Your task to perform on an android device: toggle data saver in the chrome app Image 0: 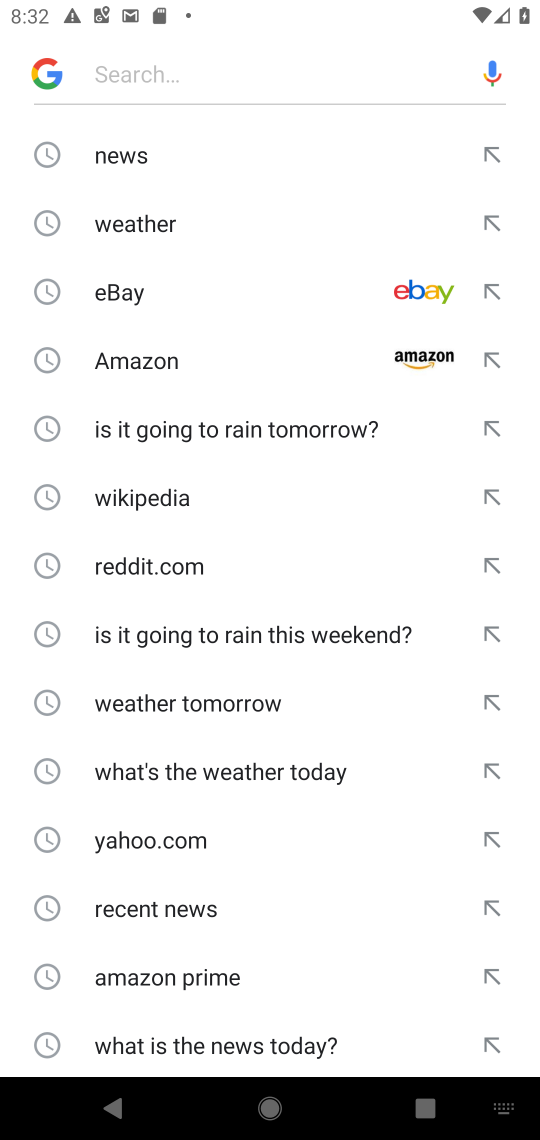
Step 0: press home button
Your task to perform on an android device: toggle data saver in the chrome app Image 1: 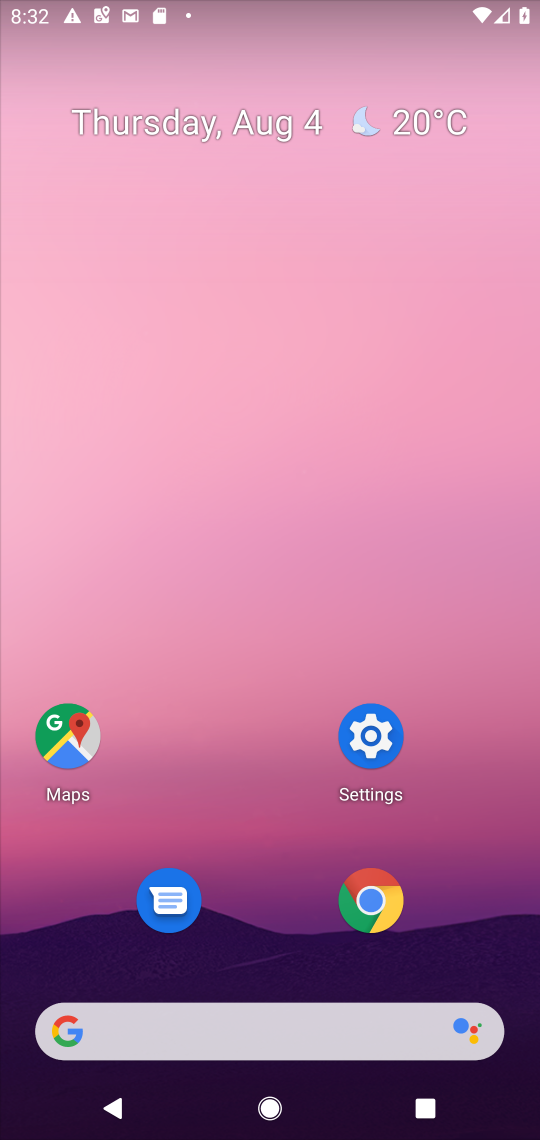
Step 1: click (371, 906)
Your task to perform on an android device: toggle data saver in the chrome app Image 2: 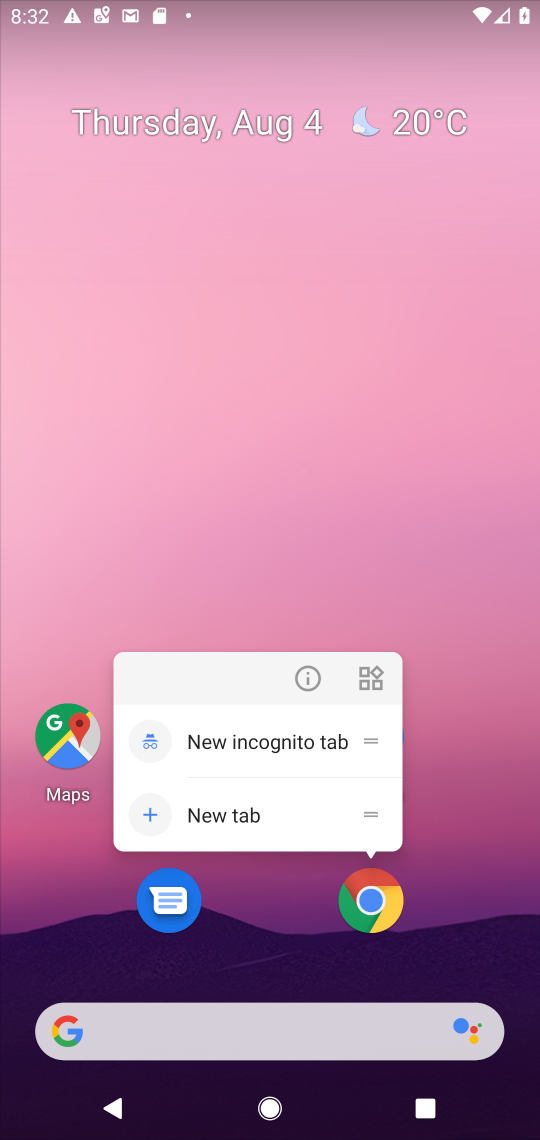
Step 2: click (371, 906)
Your task to perform on an android device: toggle data saver in the chrome app Image 3: 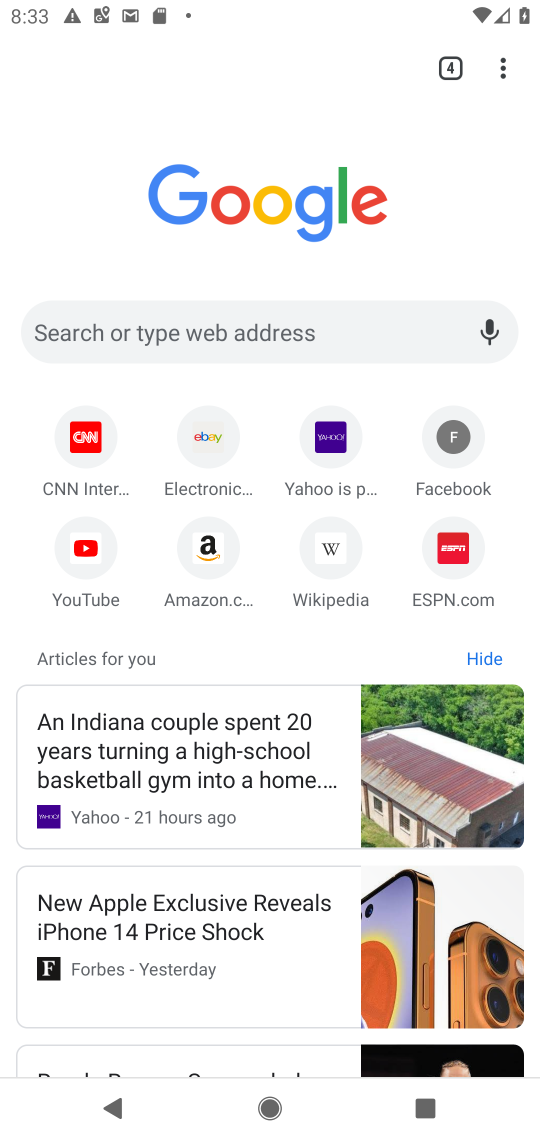
Step 3: drag from (498, 61) to (305, 634)
Your task to perform on an android device: toggle data saver in the chrome app Image 4: 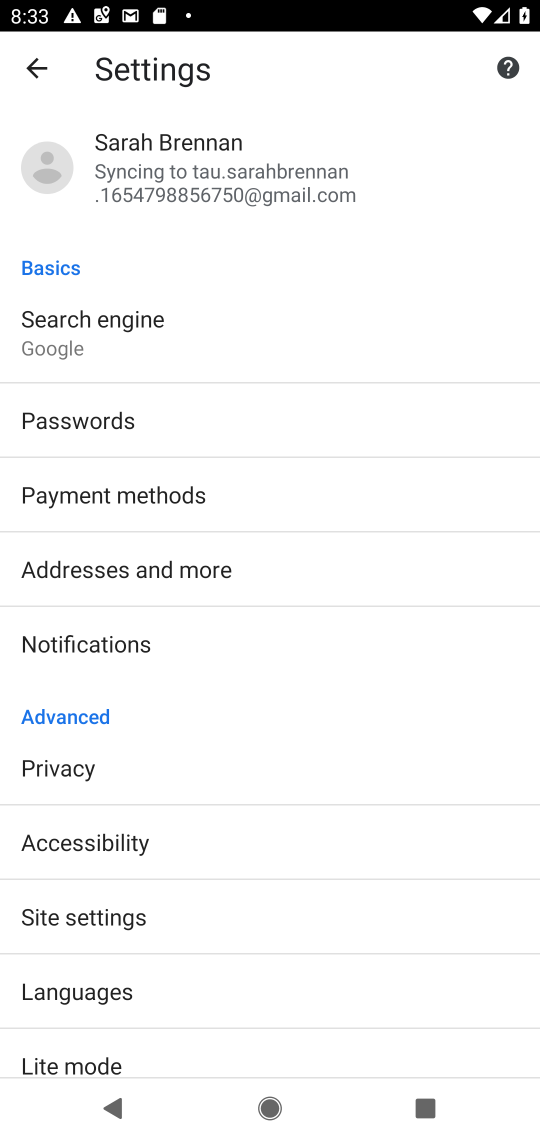
Step 4: drag from (233, 914) to (350, 424)
Your task to perform on an android device: toggle data saver in the chrome app Image 5: 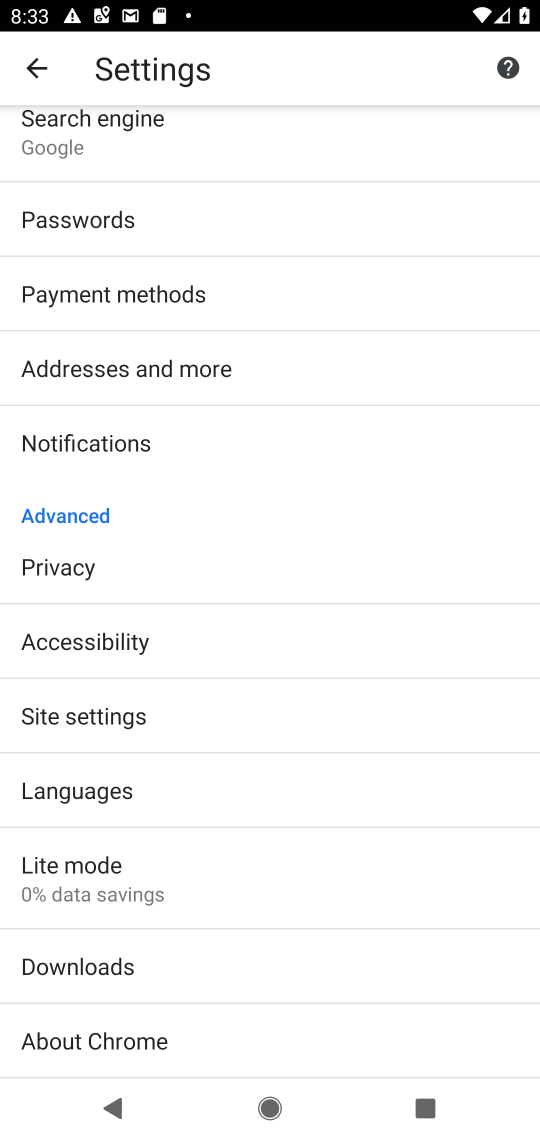
Step 5: click (116, 884)
Your task to perform on an android device: toggle data saver in the chrome app Image 6: 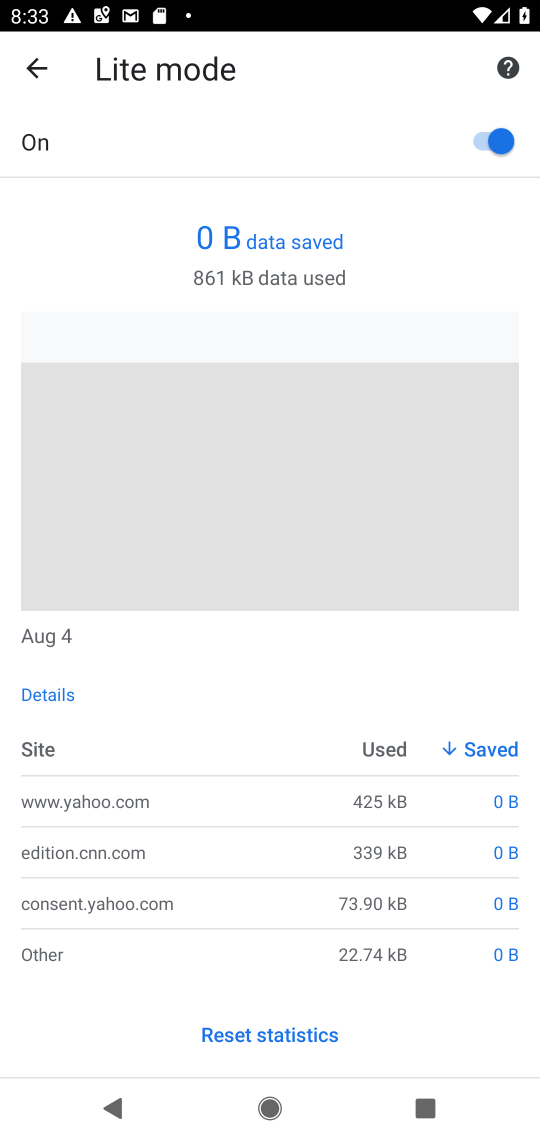
Step 6: click (480, 135)
Your task to perform on an android device: toggle data saver in the chrome app Image 7: 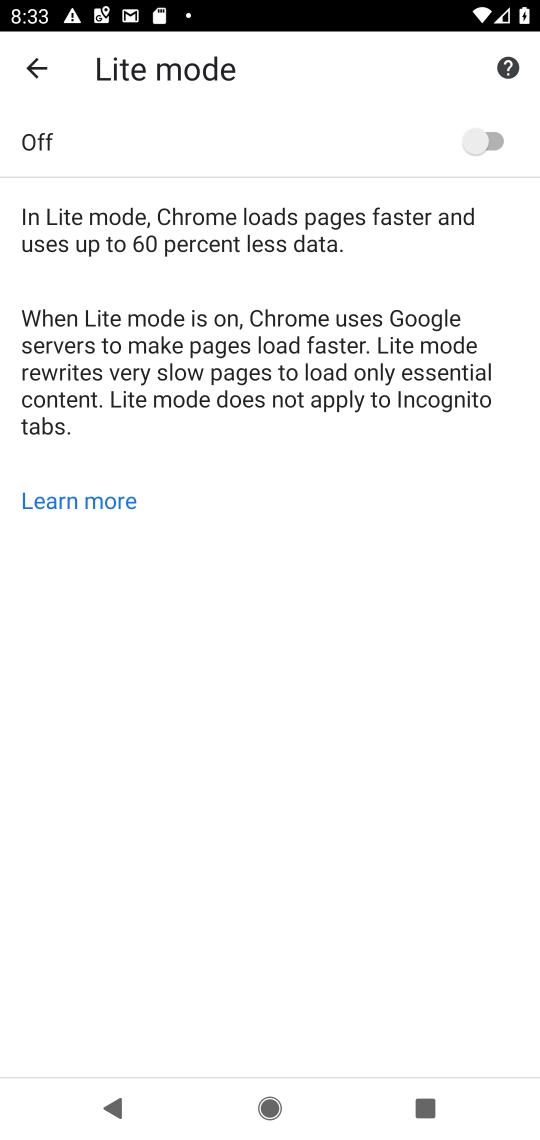
Step 7: task complete